Your task to perform on an android device: Turn off the flashlight Image 0: 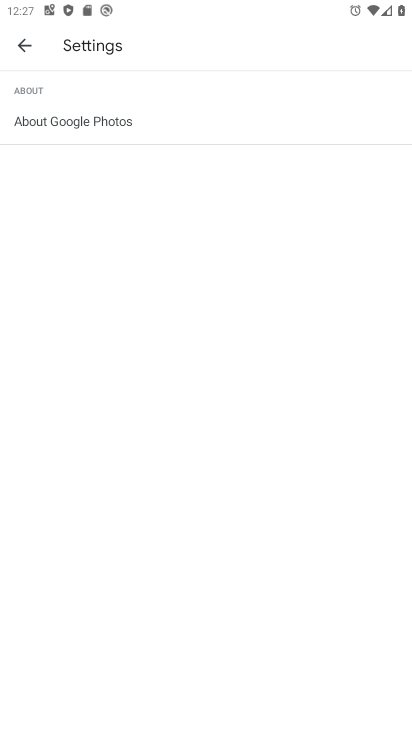
Step 0: press home button
Your task to perform on an android device: Turn off the flashlight Image 1: 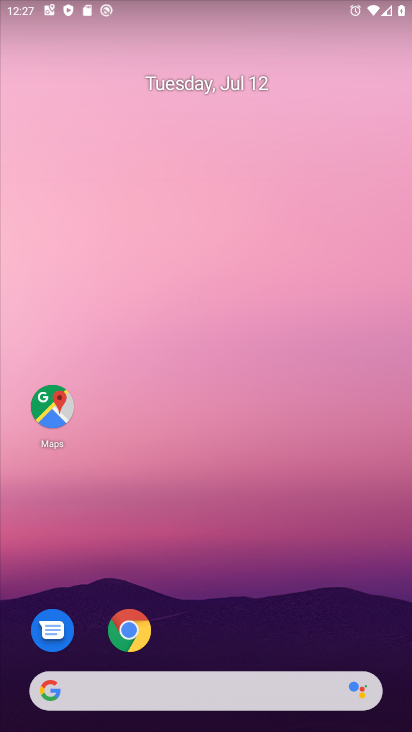
Step 1: drag from (224, 660) to (293, 0)
Your task to perform on an android device: Turn off the flashlight Image 2: 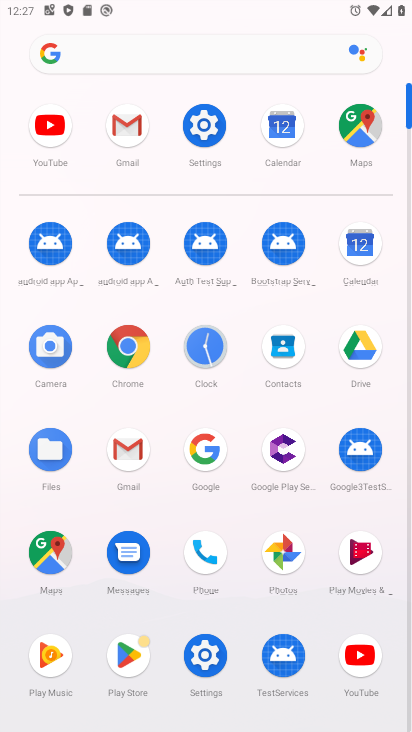
Step 2: click (206, 125)
Your task to perform on an android device: Turn off the flashlight Image 3: 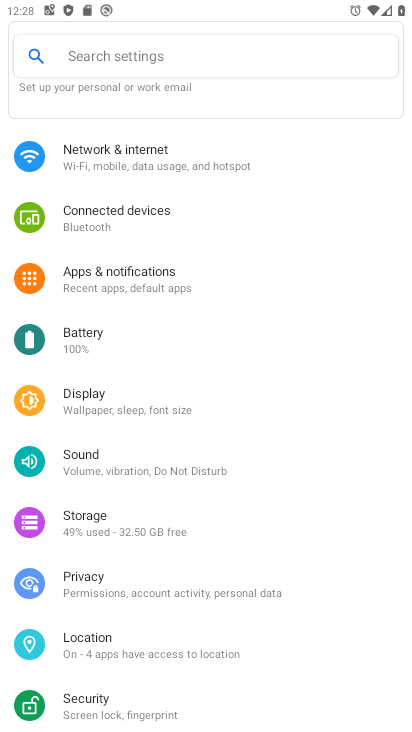
Step 3: click (107, 413)
Your task to perform on an android device: Turn off the flashlight Image 4: 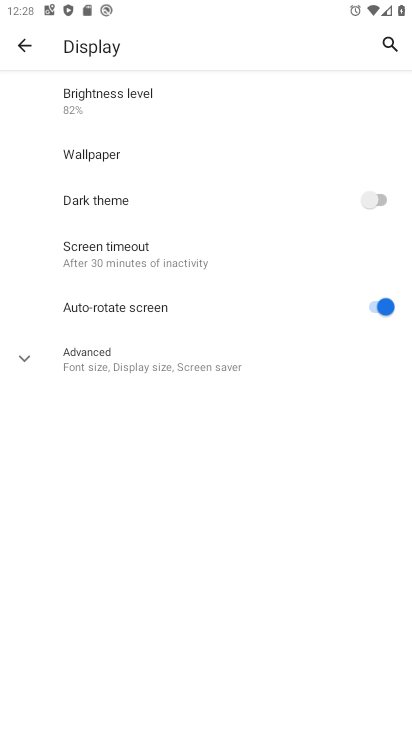
Step 4: press back button
Your task to perform on an android device: Turn off the flashlight Image 5: 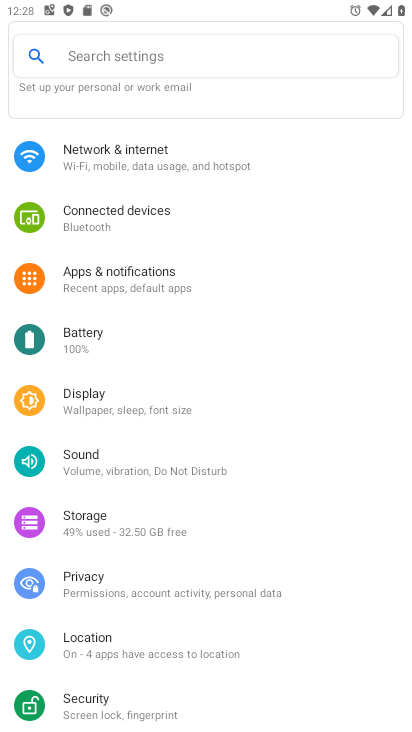
Step 5: click (187, 442)
Your task to perform on an android device: Turn off the flashlight Image 6: 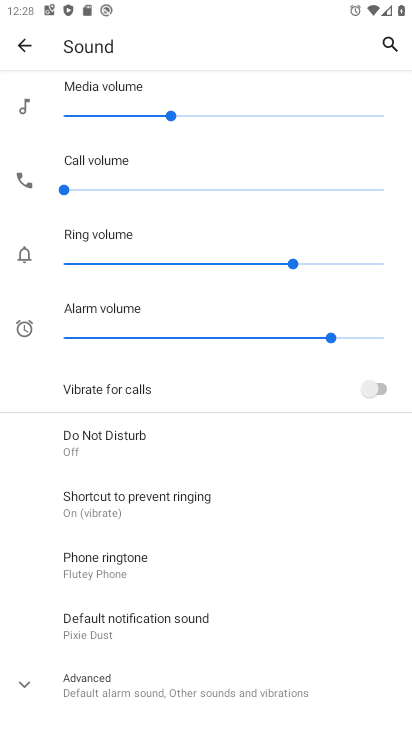
Step 6: press back button
Your task to perform on an android device: Turn off the flashlight Image 7: 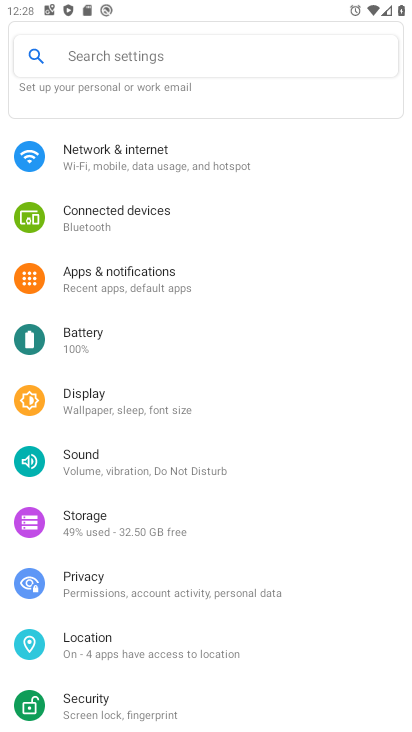
Step 7: click (97, 416)
Your task to perform on an android device: Turn off the flashlight Image 8: 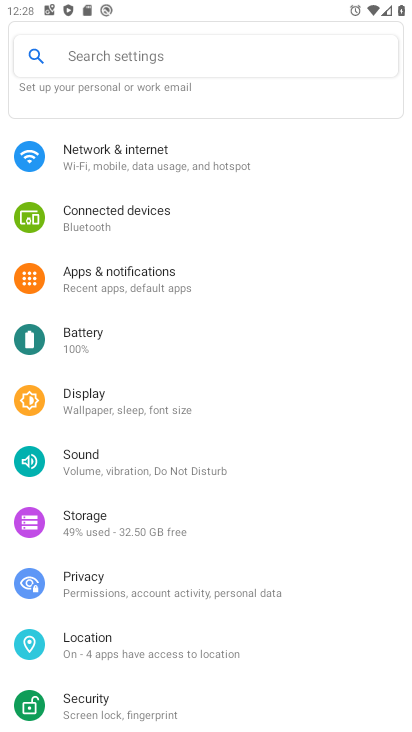
Step 8: click (97, 416)
Your task to perform on an android device: Turn off the flashlight Image 9: 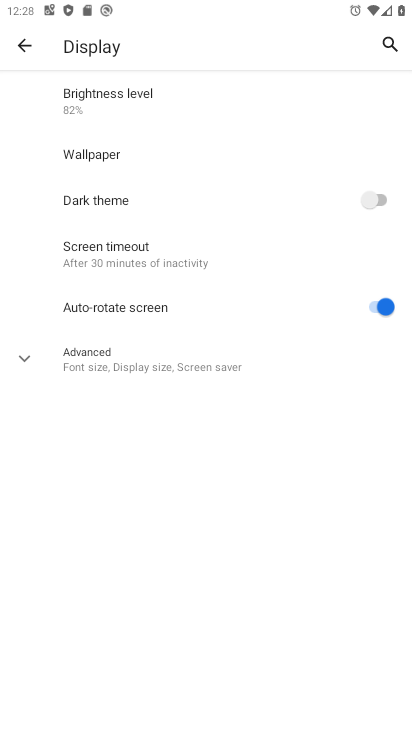
Step 9: task complete